Your task to perform on an android device: Play the last video I watched on Youtube Image 0: 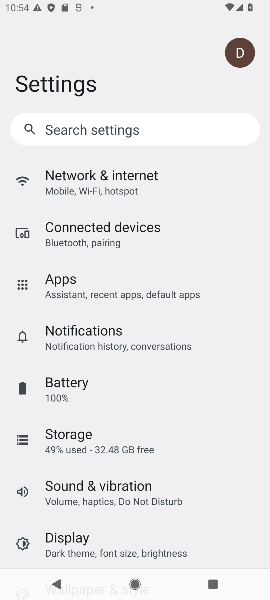
Step 0: press home button
Your task to perform on an android device: Play the last video I watched on Youtube Image 1: 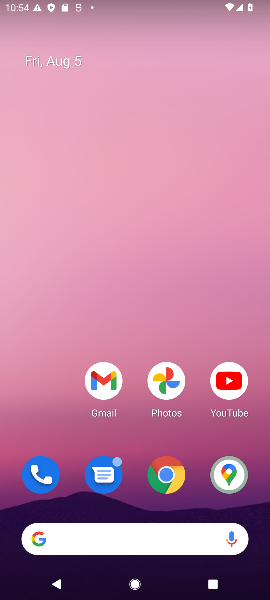
Step 1: drag from (134, 502) to (161, 59)
Your task to perform on an android device: Play the last video I watched on Youtube Image 2: 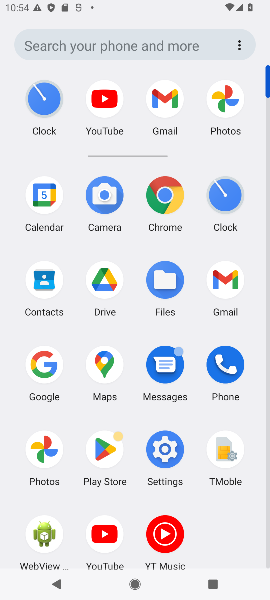
Step 2: click (102, 536)
Your task to perform on an android device: Play the last video I watched on Youtube Image 3: 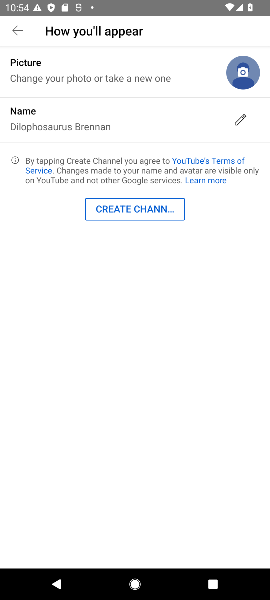
Step 3: click (17, 21)
Your task to perform on an android device: Play the last video I watched on Youtube Image 4: 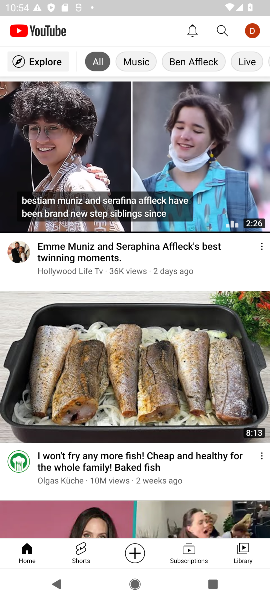
Step 4: click (240, 547)
Your task to perform on an android device: Play the last video I watched on Youtube Image 5: 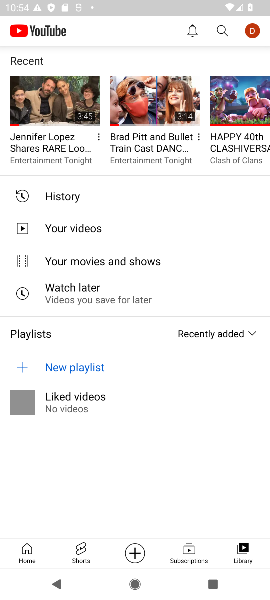
Step 5: click (71, 114)
Your task to perform on an android device: Play the last video I watched on Youtube Image 6: 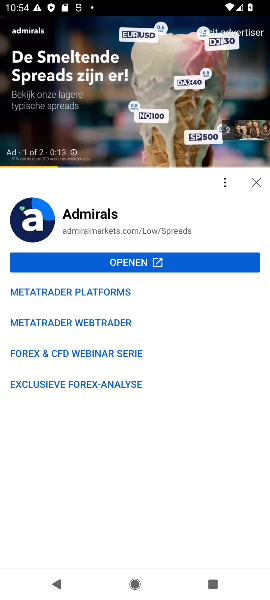
Step 6: task complete